Your task to perform on an android device: turn off translation in the chrome app Image 0: 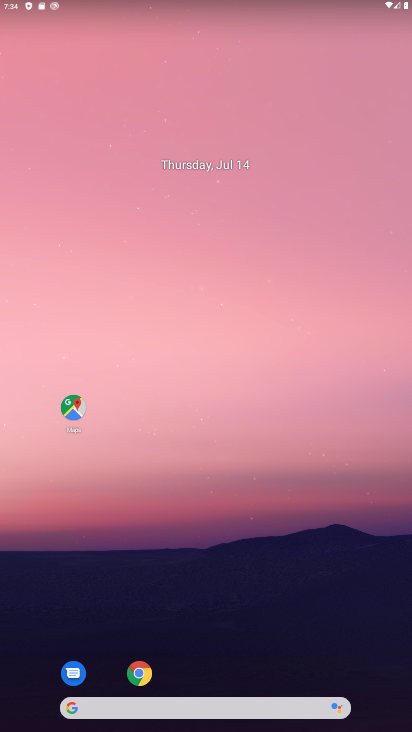
Step 0: click (140, 675)
Your task to perform on an android device: turn off translation in the chrome app Image 1: 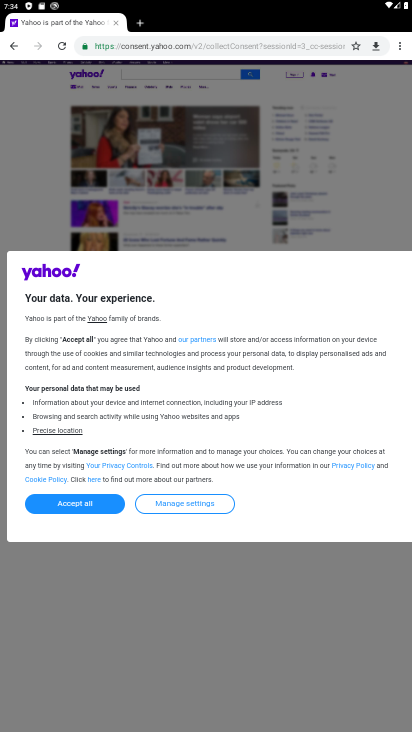
Step 1: click (400, 46)
Your task to perform on an android device: turn off translation in the chrome app Image 2: 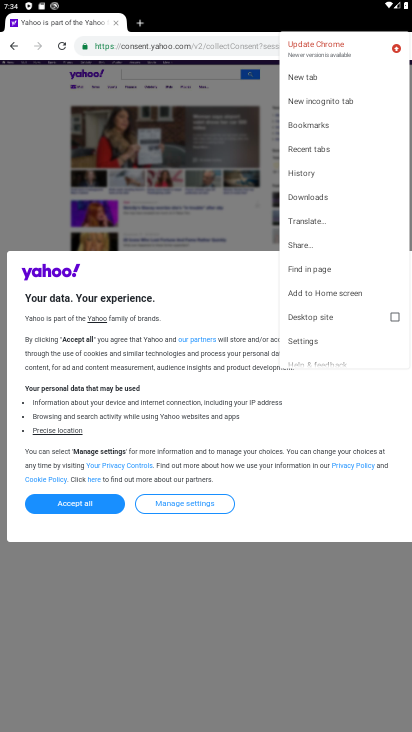
Step 2: click (300, 336)
Your task to perform on an android device: turn off translation in the chrome app Image 3: 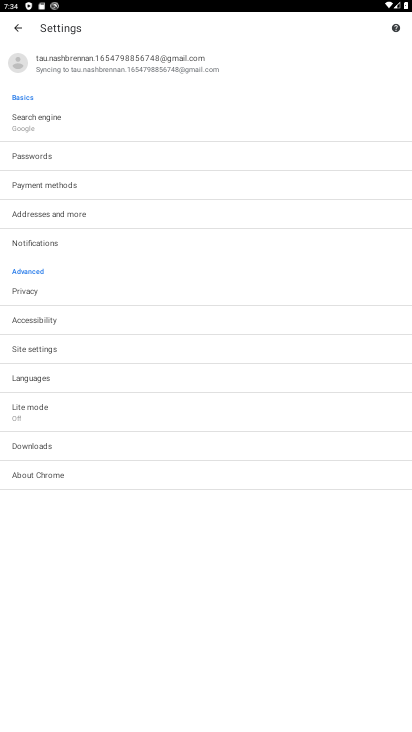
Step 3: click (38, 383)
Your task to perform on an android device: turn off translation in the chrome app Image 4: 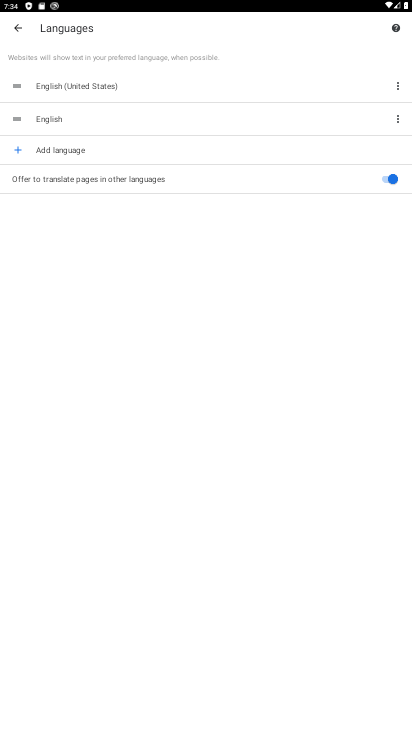
Step 4: click (391, 177)
Your task to perform on an android device: turn off translation in the chrome app Image 5: 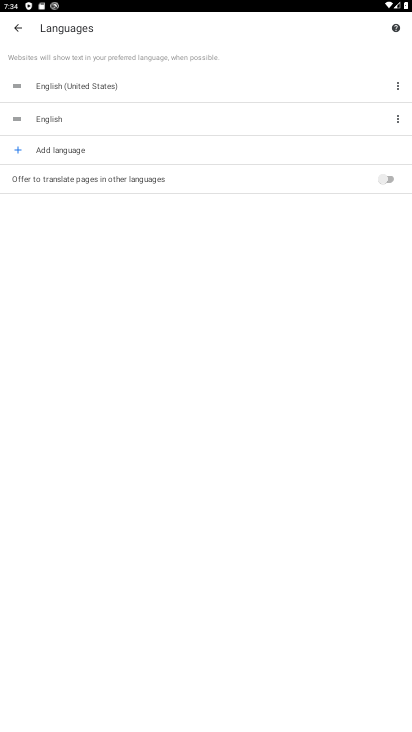
Step 5: task complete